Your task to perform on an android device: Open the calendar app, open the side menu, and click the "Day" option Image 0: 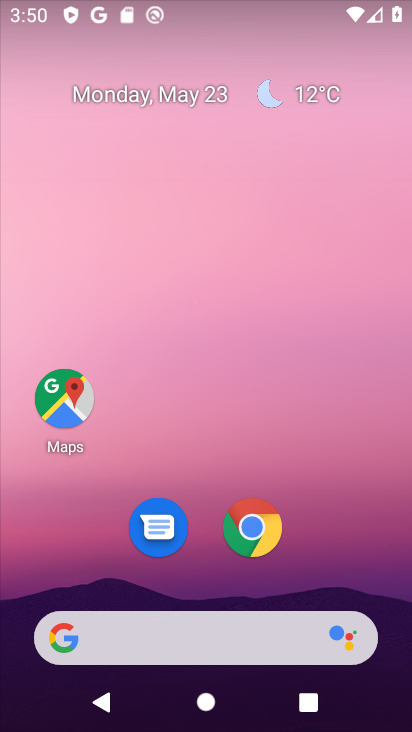
Step 0: press home button
Your task to perform on an android device: Open the calendar app, open the side menu, and click the "Day" option Image 1: 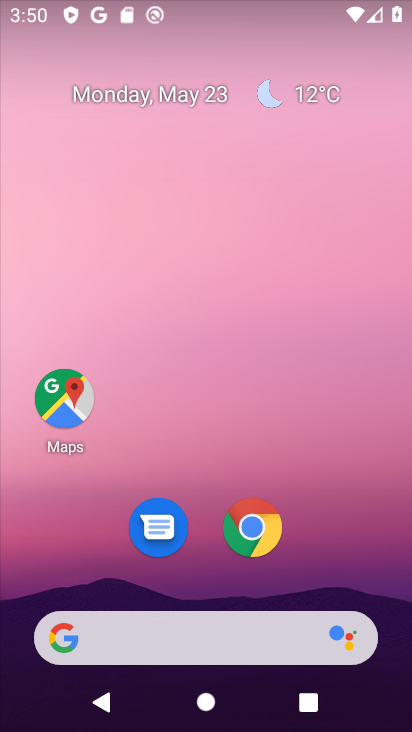
Step 1: drag from (211, 579) to (229, 51)
Your task to perform on an android device: Open the calendar app, open the side menu, and click the "Day" option Image 2: 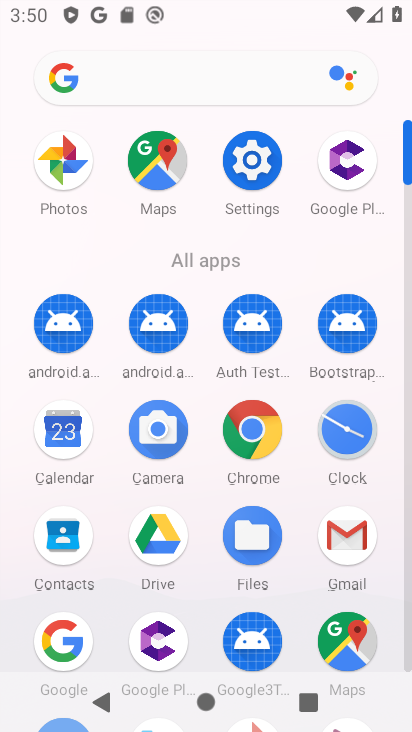
Step 2: click (58, 426)
Your task to perform on an android device: Open the calendar app, open the side menu, and click the "Day" option Image 3: 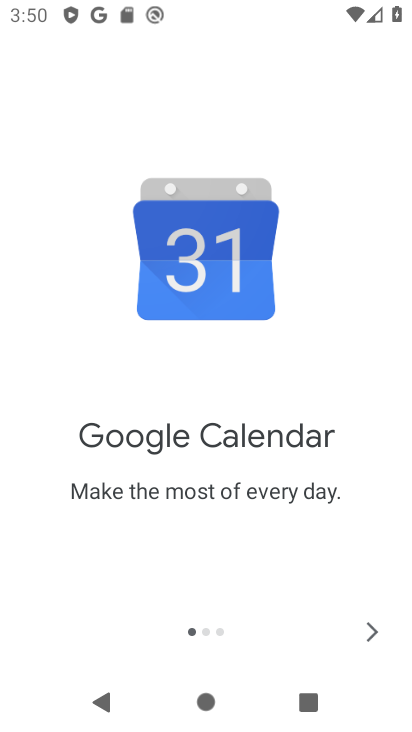
Step 3: click (364, 626)
Your task to perform on an android device: Open the calendar app, open the side menu, and click the "Day" option Image 4: 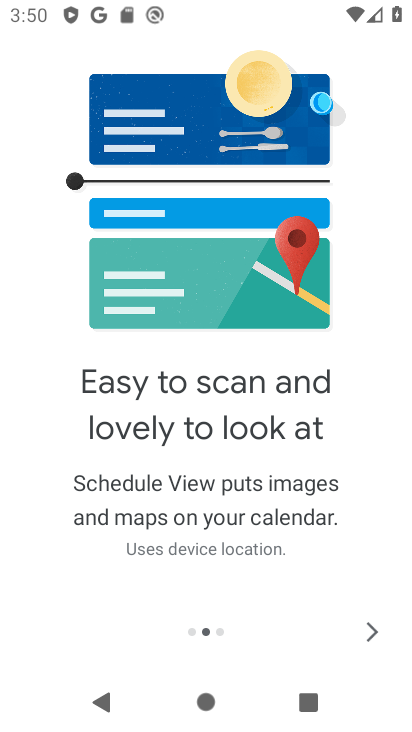
Step 4: click (364, 626)
Your task to perform on an android device: Open the calendar app, open the side menu, and click the "Day" option Image 5: 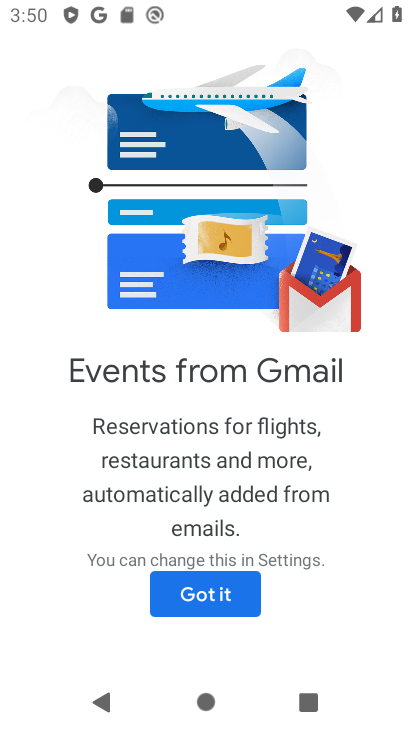
Step 5: click (209, 594)
Your task to perform on an android device: Open the calendar app, open the side menu, and click the "Day" option Image 6: 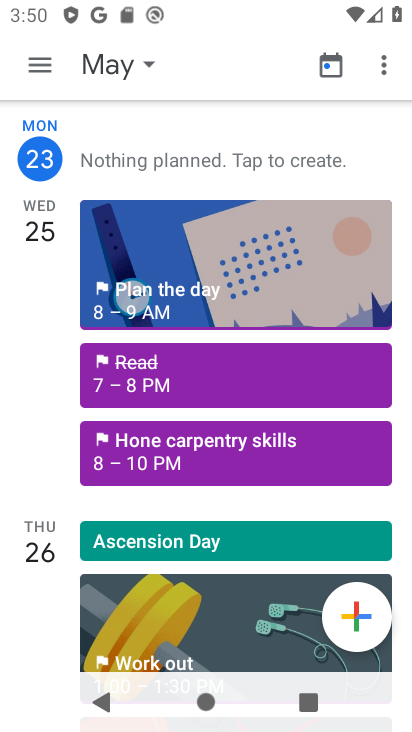
Step 6: click (38, 58)
Your task to perform on an android device: Open the calendar app, open the side menu, and click the "Day" option Image 7: 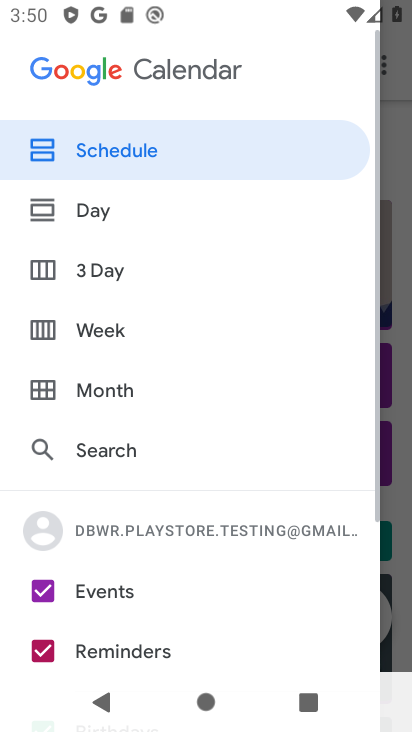
Step 7: click (115, 204)
Your task to perform on an android device: Open the calendar app, open the side menu, and click the "Day" option Image 8: 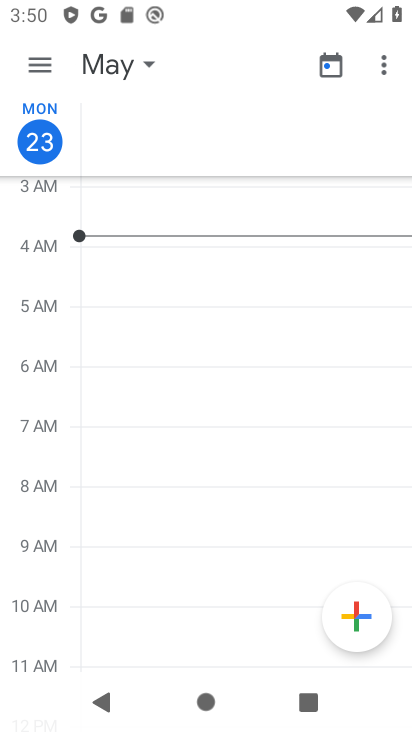
Step 8: task complete